Your task to perform on an android device: all mails in gmail Image 0: 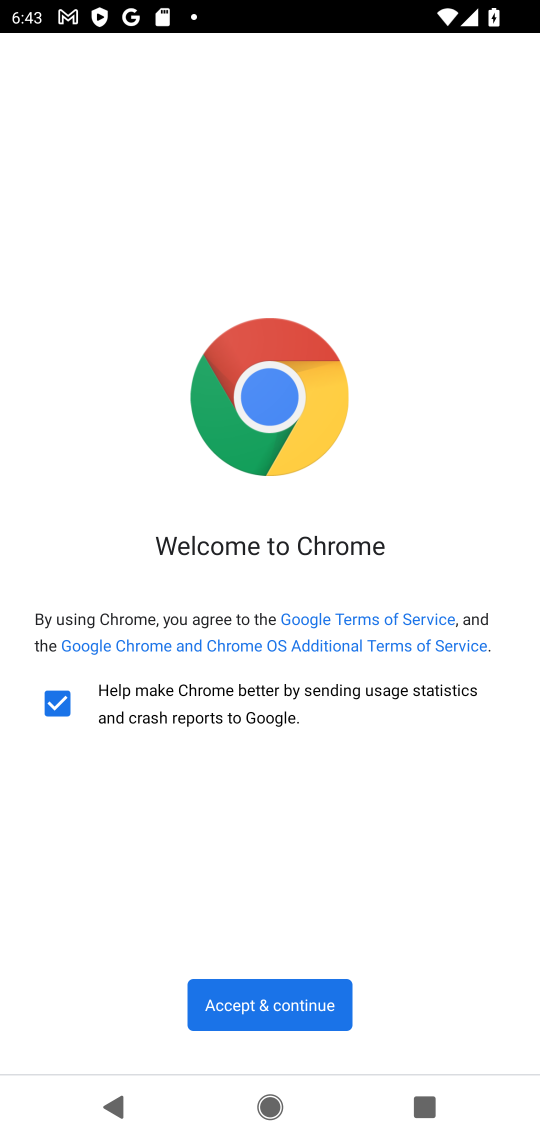
Step 0: press home button
Your task to perform on an android device: all mails in gmail Image 1: 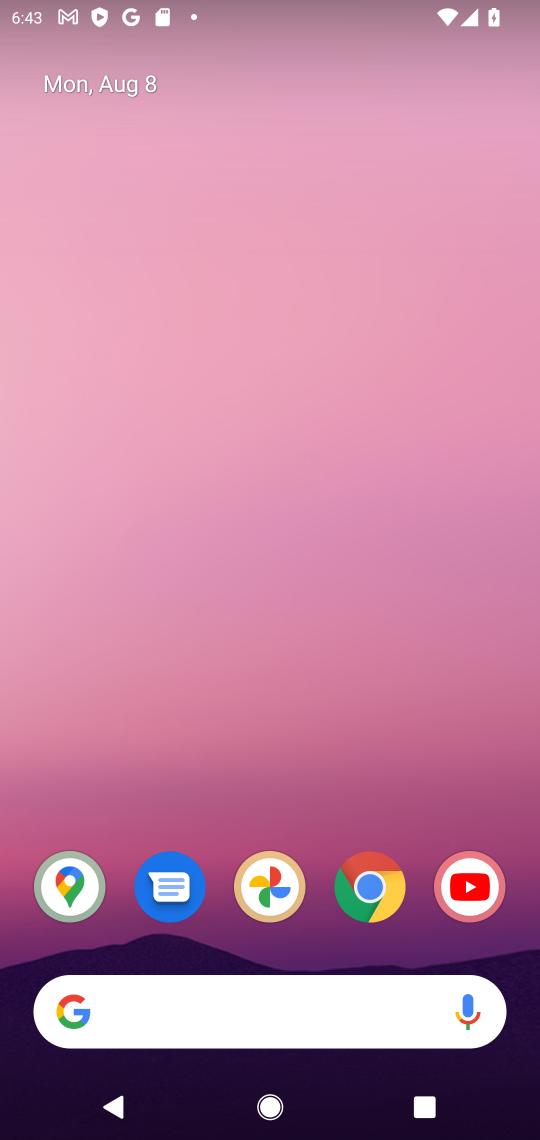
Step 1: drag from (304, 820) to (209, 148)
Your task to perform on an android device: all mails in gmail Image 2: 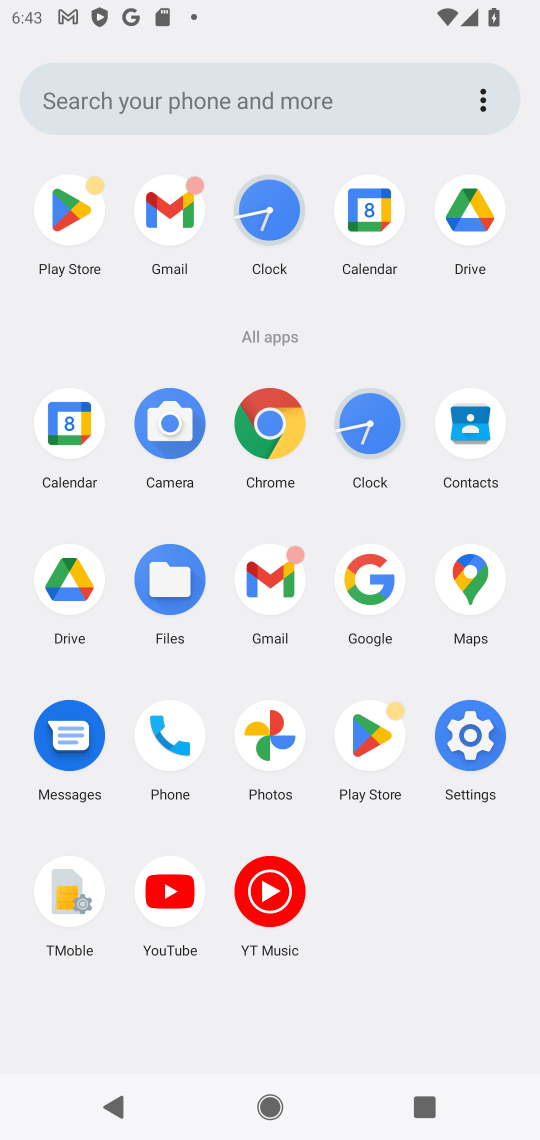
Step 2: click (165, 227)
Your task to perform on an android device: all mails in gmail Image 3: 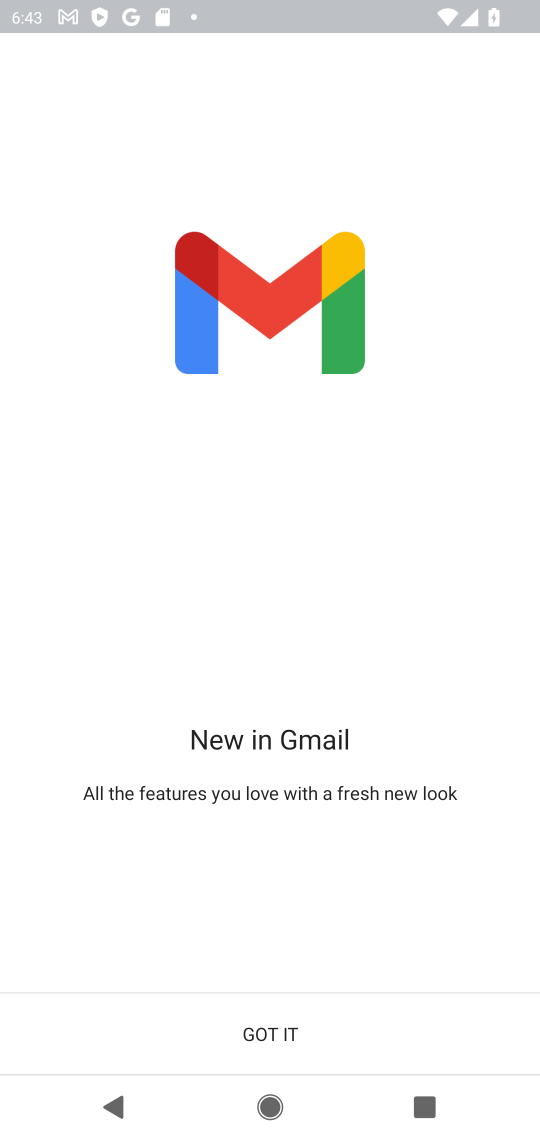
Step 3: click (269, 1026)
Your task to perform on an android device: all mails in gmail Image 4: 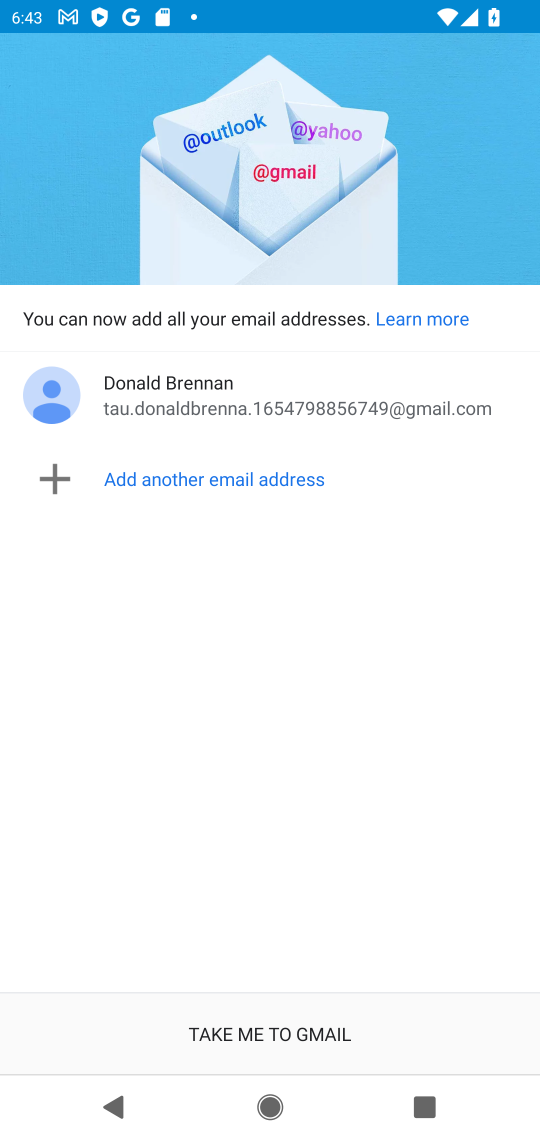
Step 4: click (269, 1026)
Your task to perform on an android device: all mails in gmail Image 5: 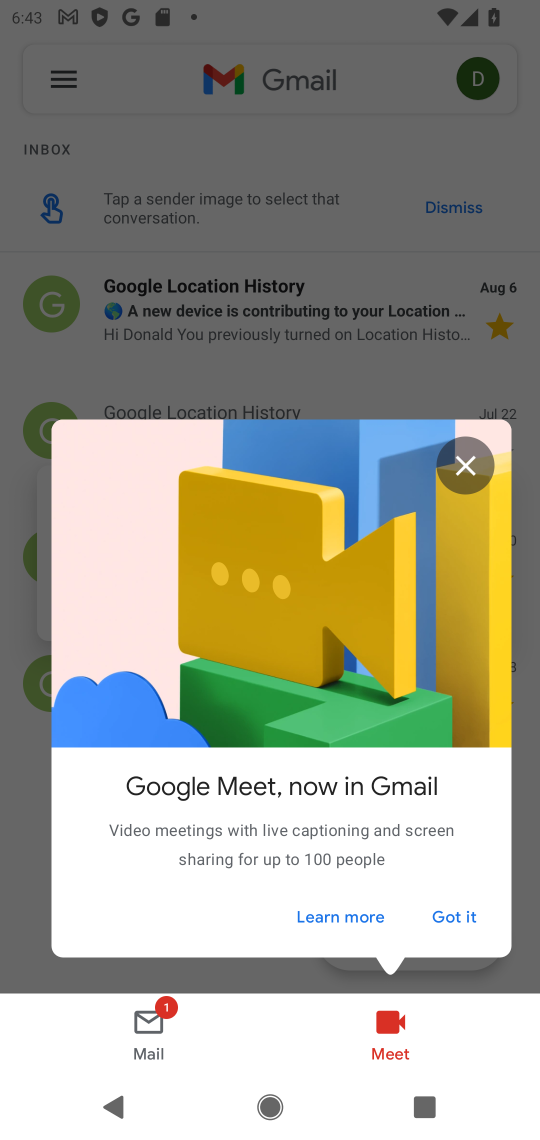
Step 5: click (467, 915)
Your task to perform on an android device: all mails in gmail Image 6: 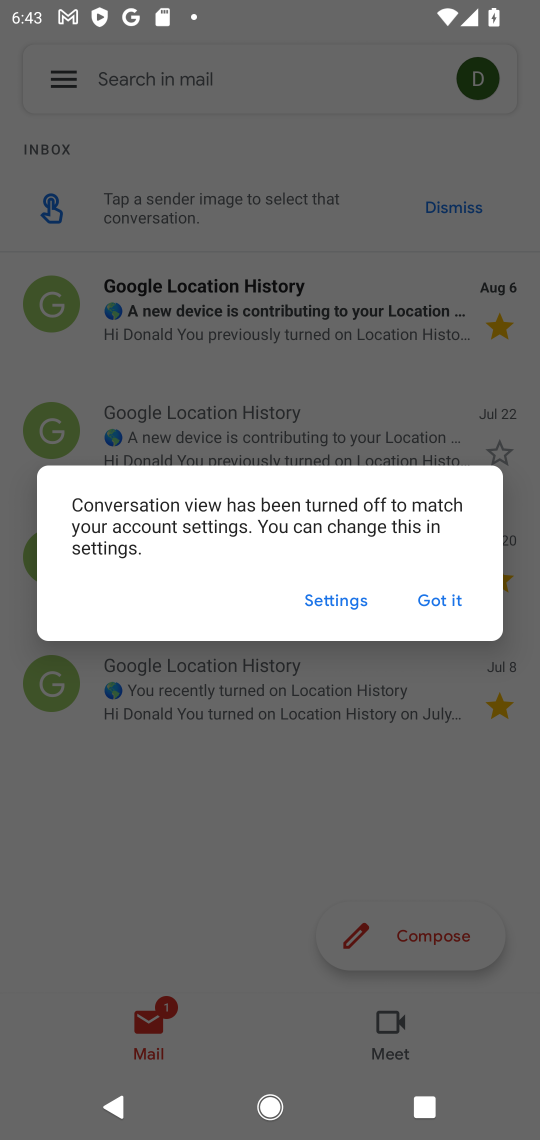
Step 6: click (457, 601)
Your task to perform on an android device: all mails in gmail Image 7: 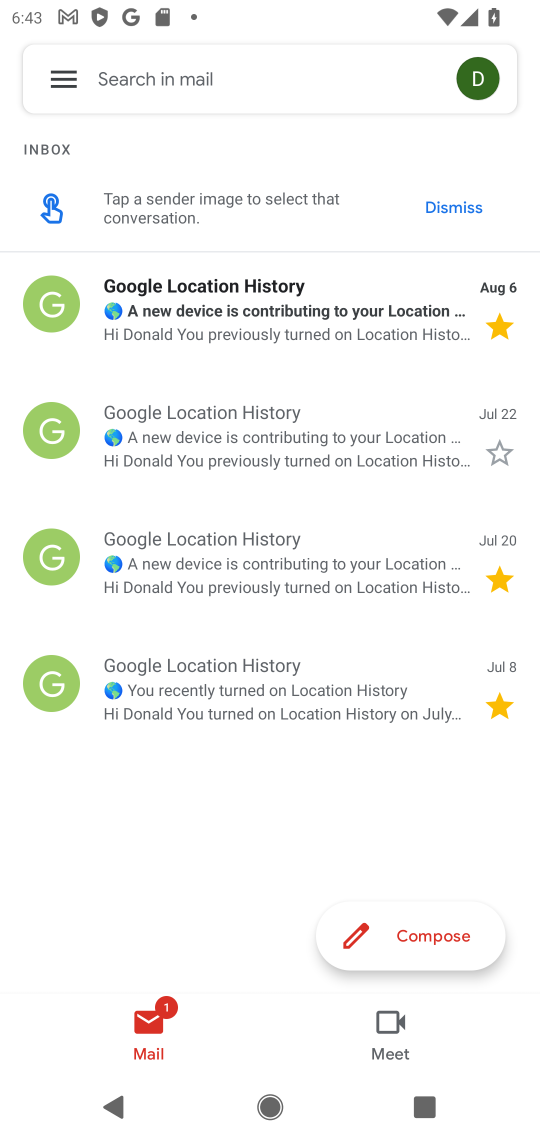
Step 7: click (67, 96)
Your task to perform on an android device: all mails in gmail Image 8: 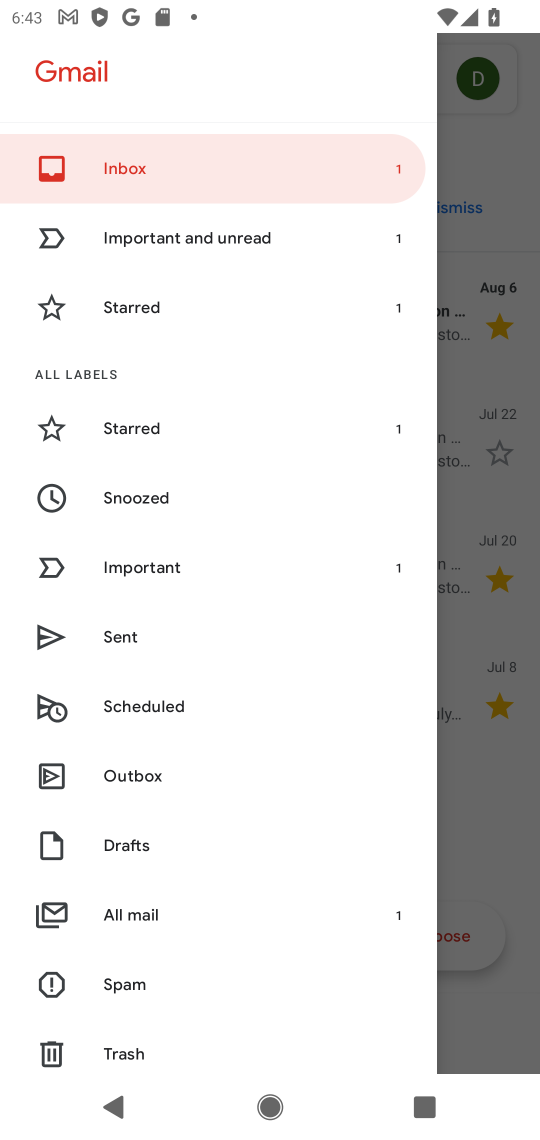
Step 8: click (167, 912)
Your task to perform on an android device: all mails in gmail Image 9: 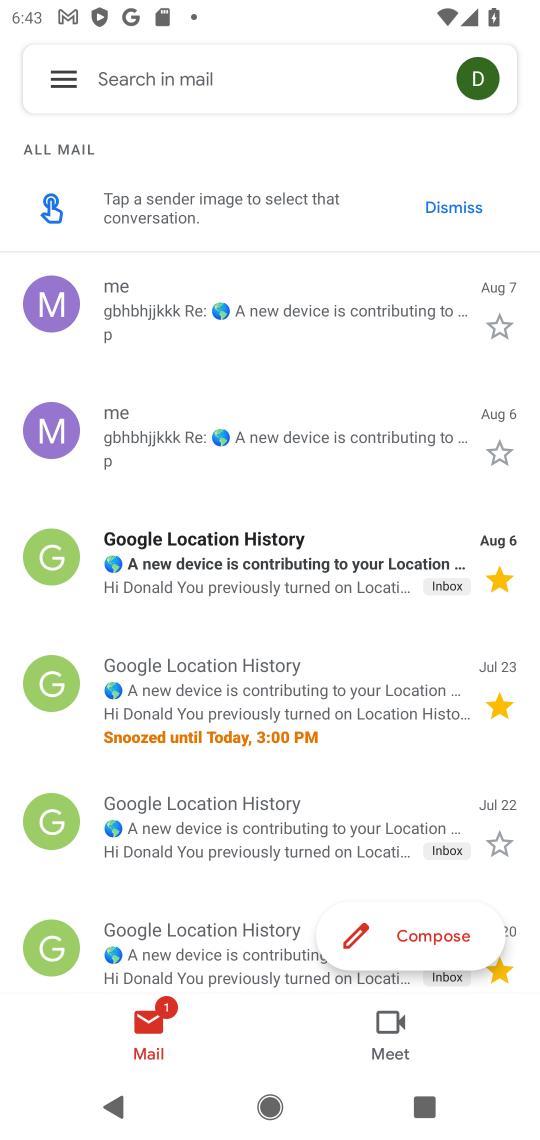
Step 9: task complete